Your task to perform on an android device: Open calendar and show me the third week of next month Image 0: 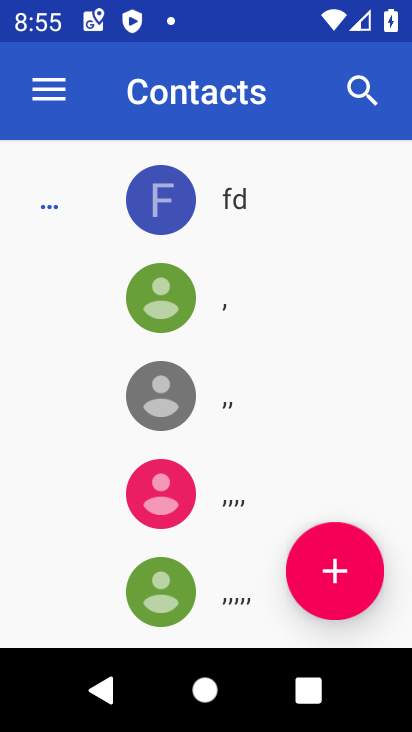
Step 0: press home button
Your task to perform on an android device: Open calendar and show me the third week of next month Image 1: 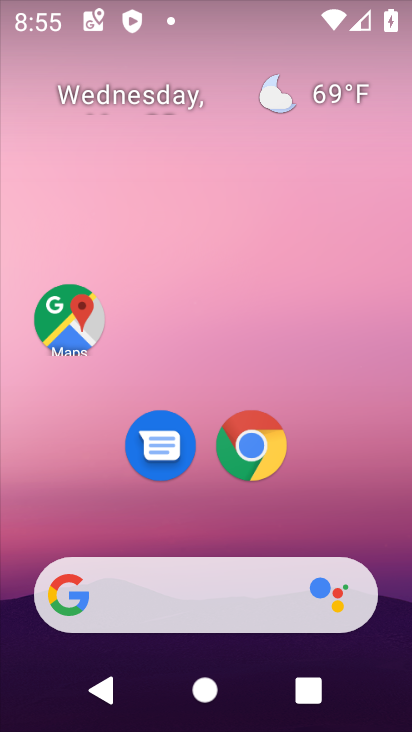
Step 1: drag from (315, 513) to (316, 89)
Your task to perform on an android device: Open calendar and show me the third week of next month Image 2: 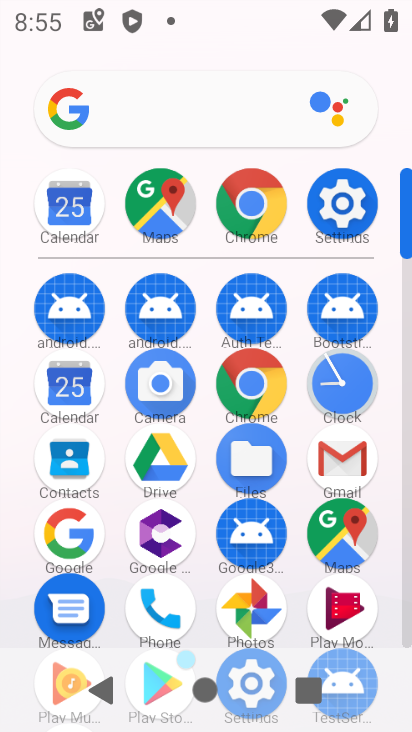
Step 2: click (57, 206)
Your task to perform on an android device: Open calendar and show me the third week of next month Image 3: 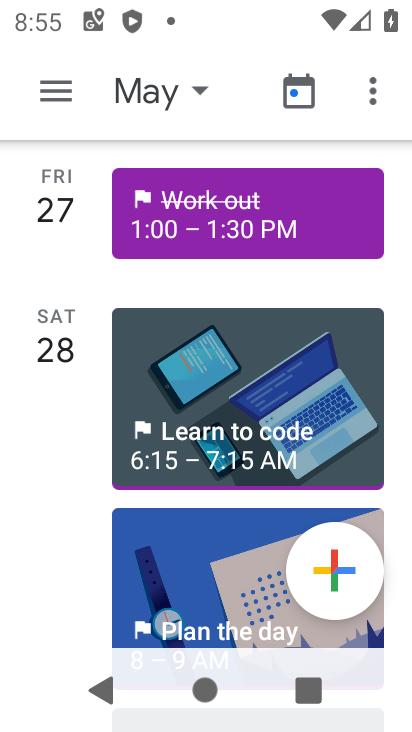
Step 3: click (190, 88)
Your task to perform on an android device: Open calendar and show me the third week of next month Image 4: 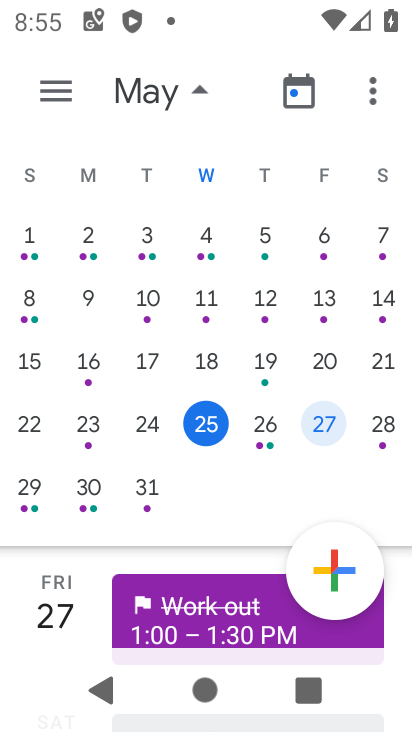
Step 4: drag from (225, 247) to (33, 258)
Your task to perform on an android device: Open calendar and show me the third week of next month Image 5: 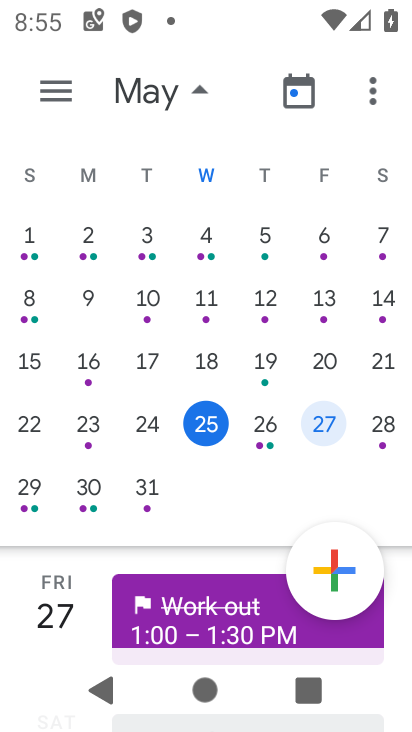
Step 5: drag from (359, 309) to (0, 274)
Your task to perform on an android device: Open calendar and show me the third week of next month Image 6: 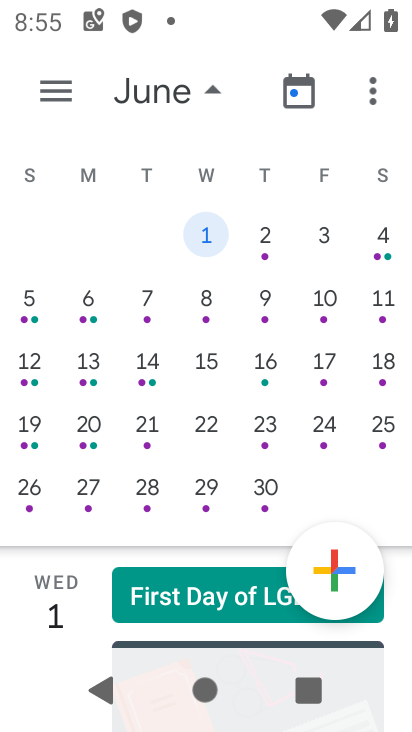
Step 6: click (319, 358)
Your task to perform on an android device: Open calendar and show me the third week of next month Image 7: 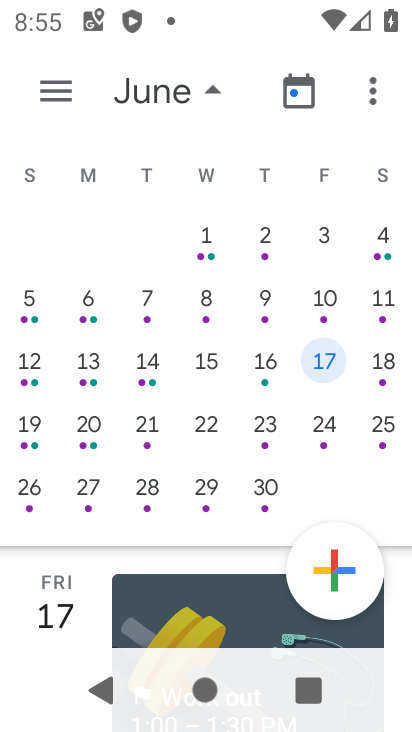
Step 7: task complete